Your task to perform on an android device: add a contact Image 0: 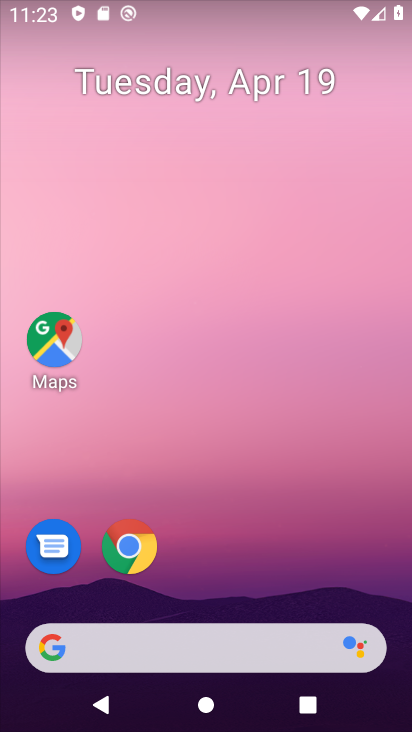
Step 0: drag from (398, 559) to (342, 72)
Your task to perform on an android device: add a contact Image 1: 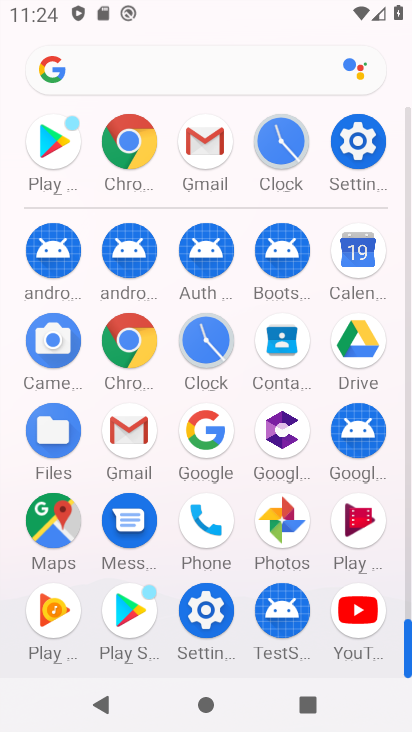
Step 1: click (281, 343)
Your task to perform on an android device: add a contact Image 2: 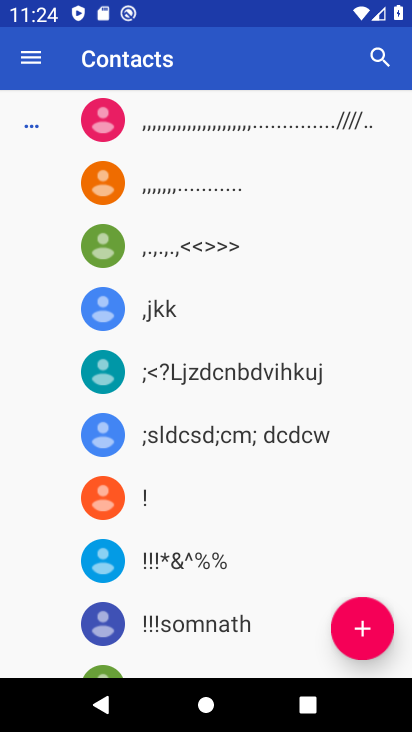
Step 2: click (367, 653)
Your task to perform on an android device: add a contact Image 3: 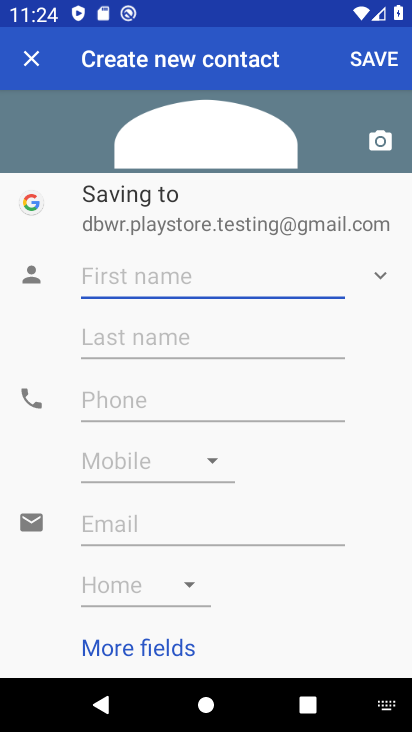
Step 3: type "Zxdf"
Your task to perform on an android device: add a contact Image 4: 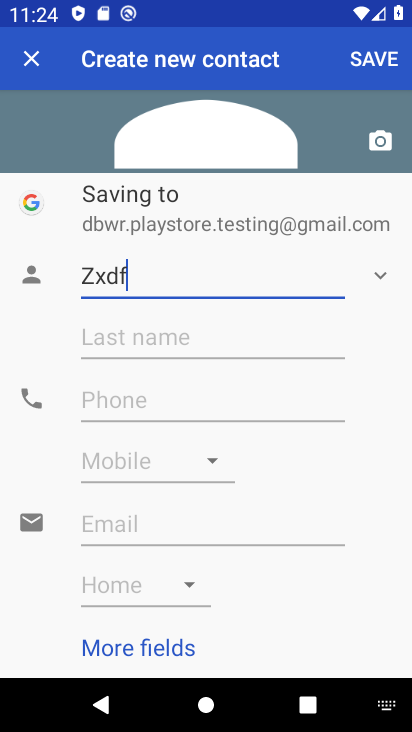
Step 4: type ""
Your task to perform on an android device: add a contact Image 5: 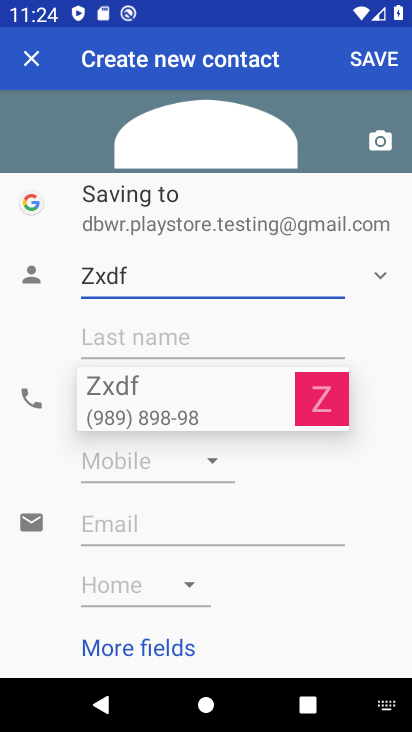
Step 5: click (151, 399)
Your task to perform on an android device: add a contact Image 6: 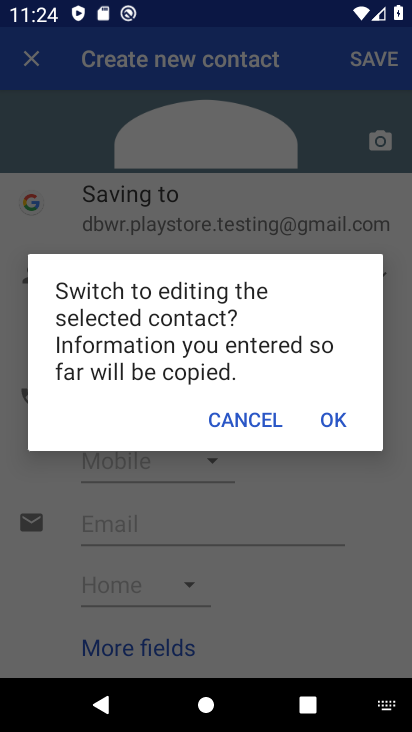
Step 6: click (343, 415)
Your task to perform on an android device: add a contact Image 7: 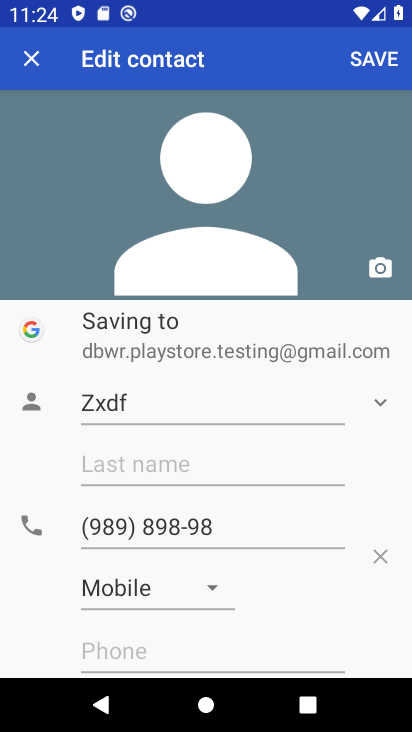
Step 7: click (375, 68)
Your task to perform on an android device: add a contact Image 8: 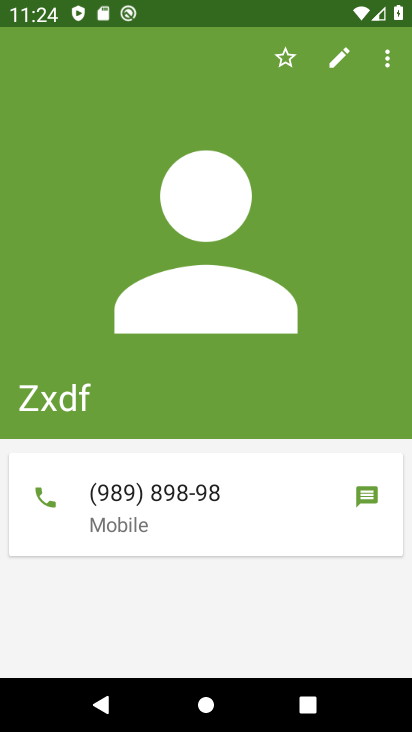
Step 8: task complete